Your task to perform on an android device: Open the stopwatch Image 0: 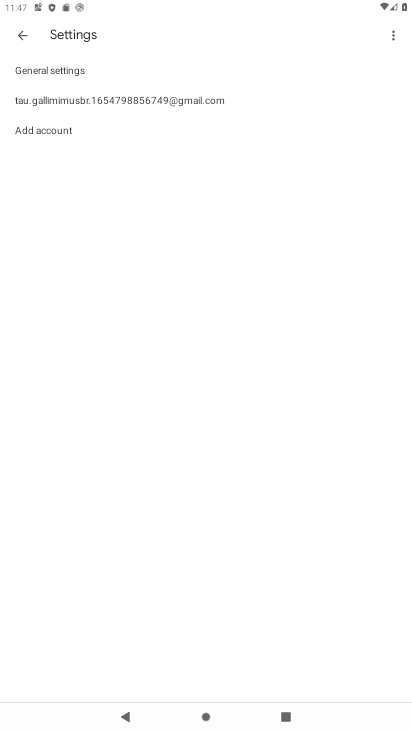
Step 0: press home button
Your task to perform on an android device: Open the stopwatch Image 1: 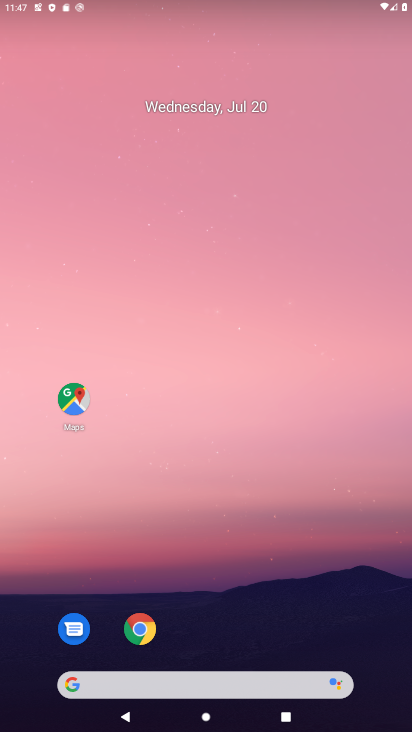
Step 1: drag from (251, 419) to (295, 173)
Your task to perform on an android device: Open the stopwatch Image 2: 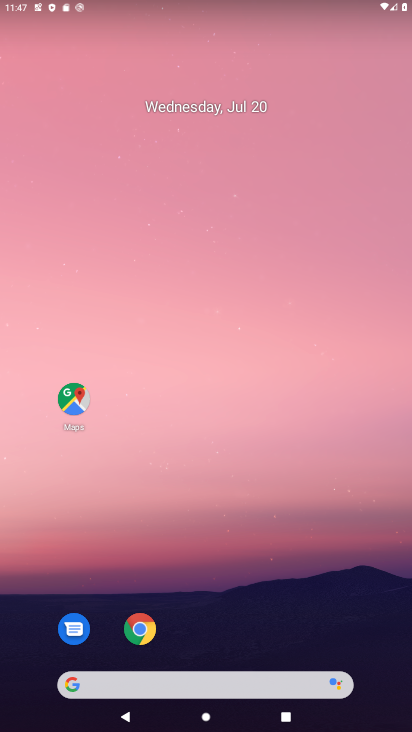
Step 2: drag from (256, 645) to (258, 168)
Your task to perform on an android device: Open the stopwatch Image 3: 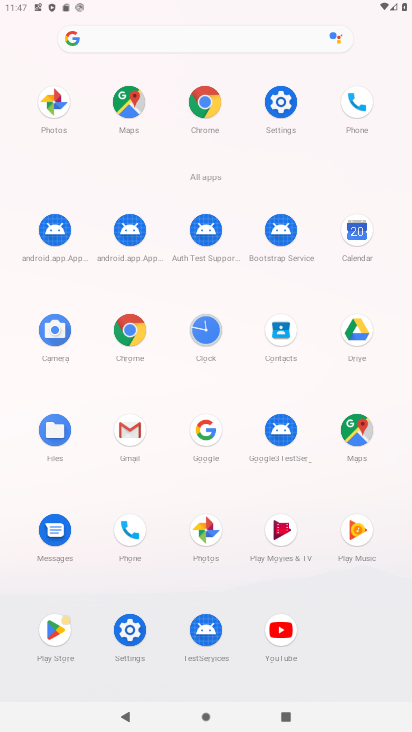
Step 3: click (206, 327)
Your task to perform on an android device: Open the stopwatch Image 4: 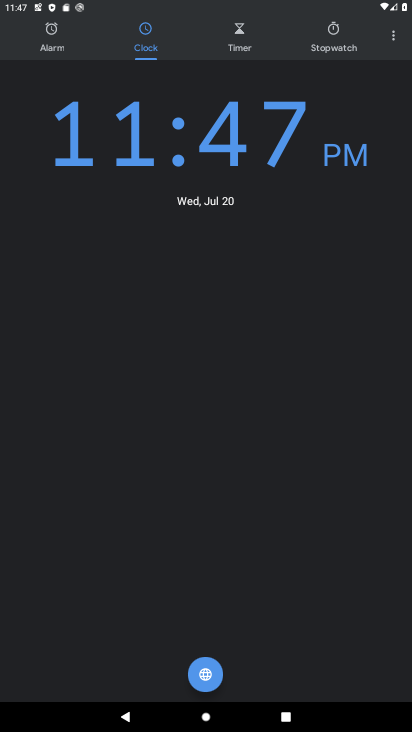
Step 4: click (390, 36)
Your task to perform on an android device: Open the stopwatch Image 5: 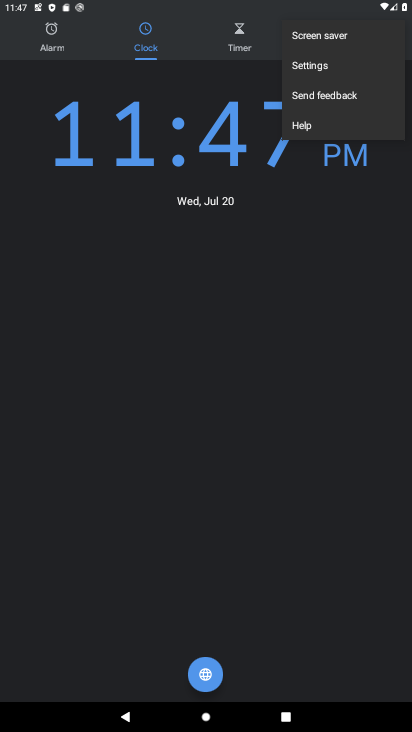
Step 5: click (307, 321)
Your task to perform on an android device: Open the stopwatch Image 6: 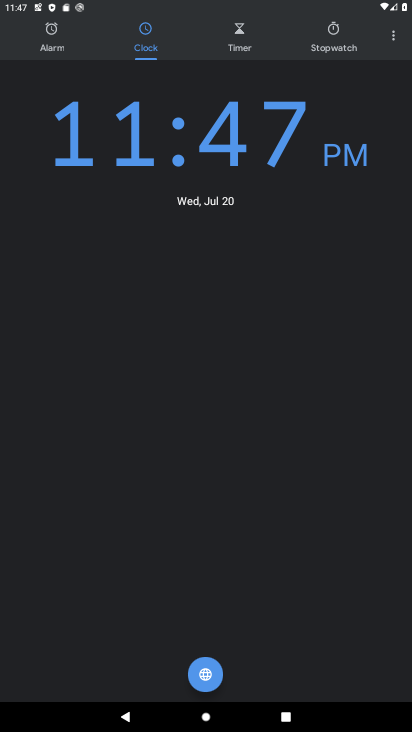
Step 6: click (331, 48)
Your task to perform on an android device: Open the stopwatch Image 7: 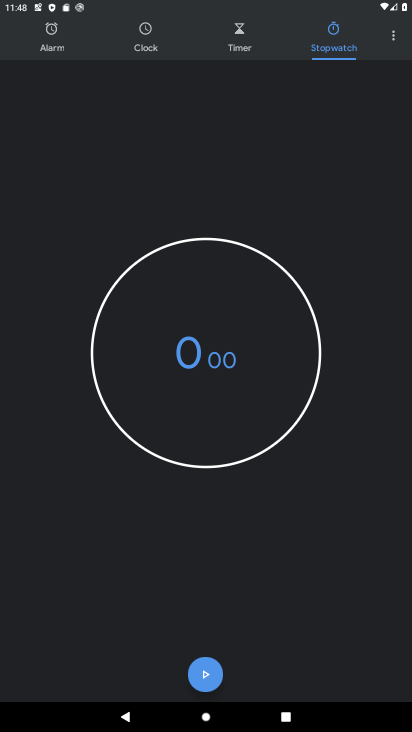
Step 7: task complete